Your task to perform on an android device: turn on data saver in the chrome app Image 0: 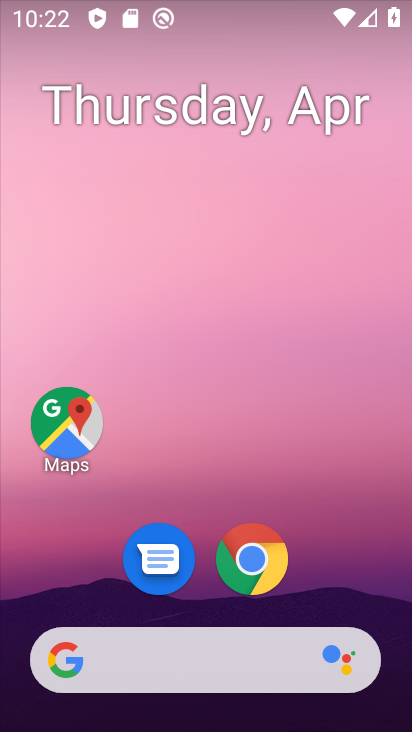
Step 0: drag from (245, 617) to (308, 235)
Your task to perform on an android device: turn on data saver in the chrome app Image 1: 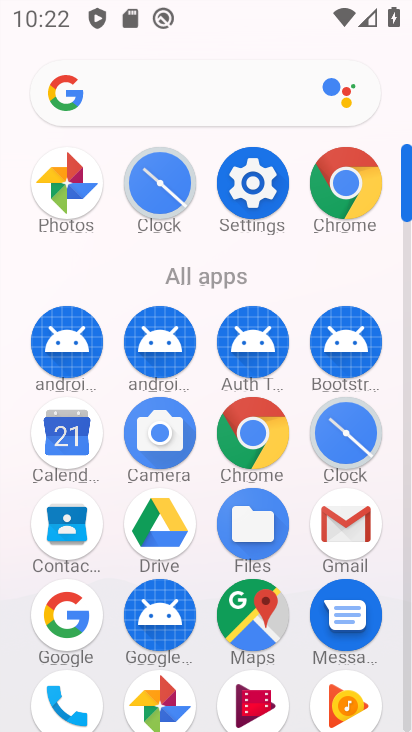
Step 1: click (347, 185)
Your task to perform on an android device: turn on data saver in the chrome app Image 2: 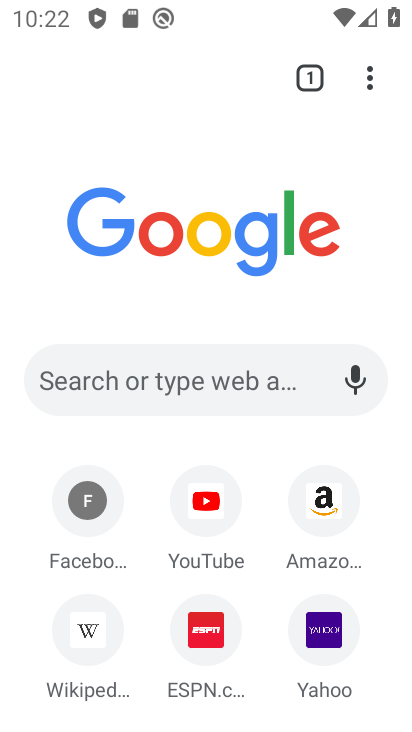
Step 2: click (360, 71)
Your task to perform on an android device: turn on data saver in the chrome app Image 3: 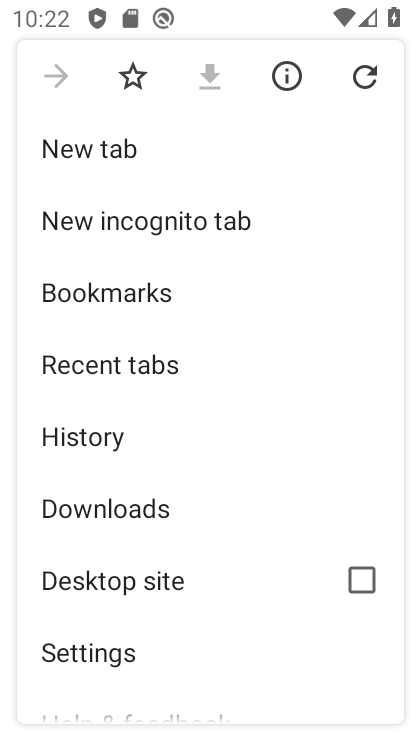
Step 3: click (83, 640)
Your task to perform on an android device: turn on data saver in the chrome app Image 4: 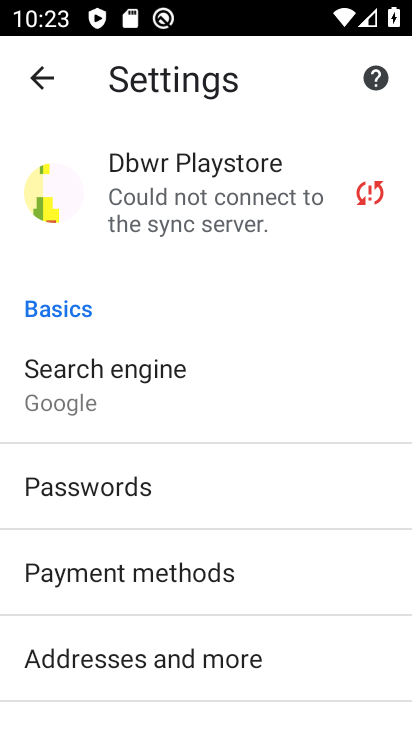
Step 4: drag from (84, 636) to (143, 256)
Your task to perform on an android device: turn on data saver in the chrome app Image 5: 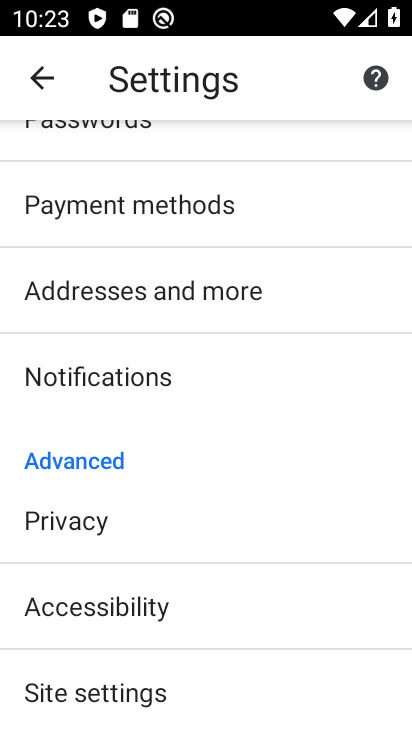
Step 5: drag from (204, 601) to (276, 304)
Your task to perform on an android device: turn on data saver in the chrome app Image 6: 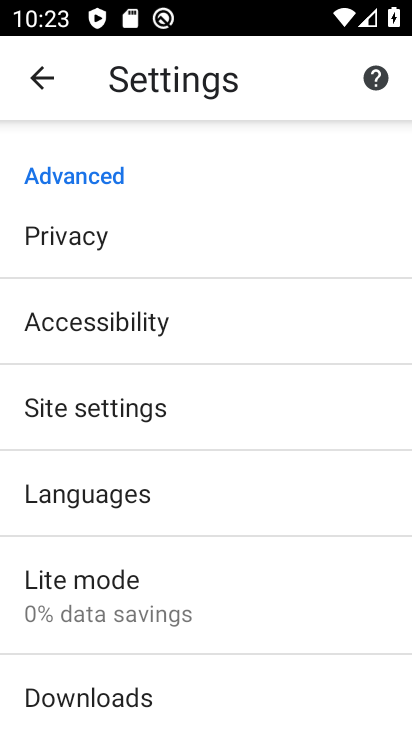
Step 6: click (145, 637)
Your task to perform on an android device: turn on data saver in the chrome app Image 7: 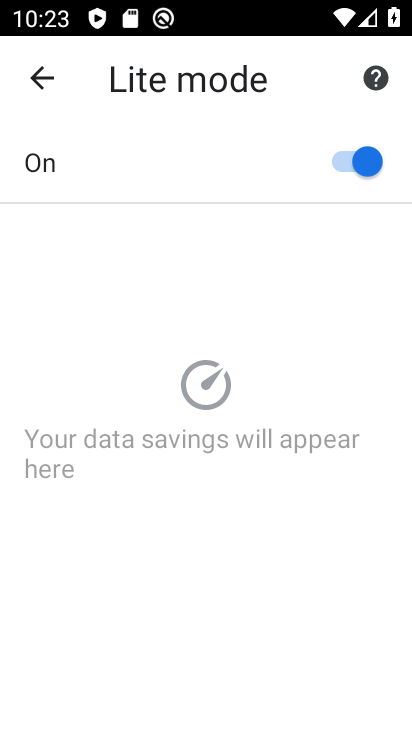
Step 7: task complete